Your task to perform on an android device: choose inbox layout in the gmail app Image 0: 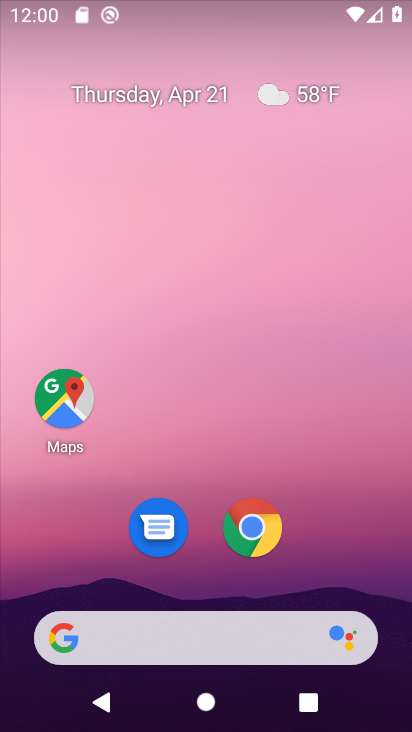
Step 0: drag from (325, 484) to (289, 218)
Your task to perform on an android device: choose inbox layout in the gmail app Image 1: 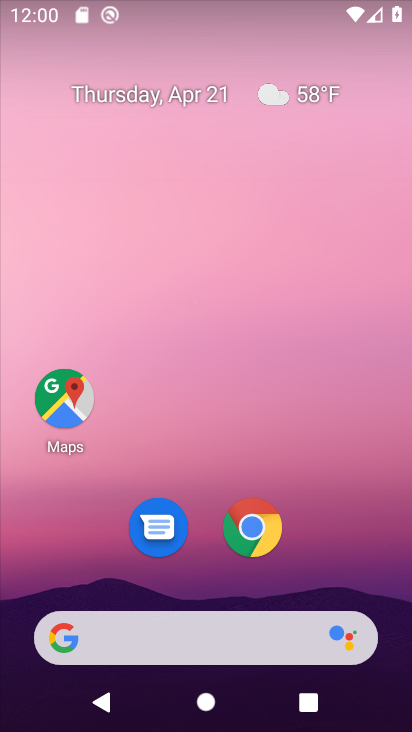
Step 1: drag from (331, 559) to (290, 142)
Your task to perform on an android device: choose inbox layout in the gmail app Image 2: 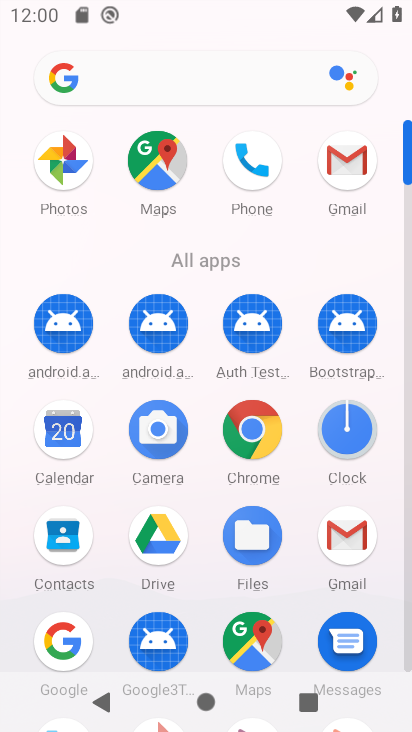
Step 2: click (327, 172)
Your task to perform on an android device: choose inbox layout in the gmail app Image 3: 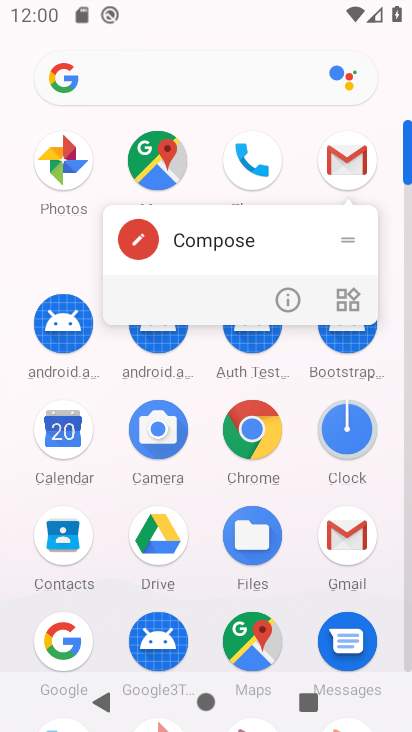
Step 3: click (341, 163)
Your task to perform on an android device: choose inbox layout in the gmail app Image 4: 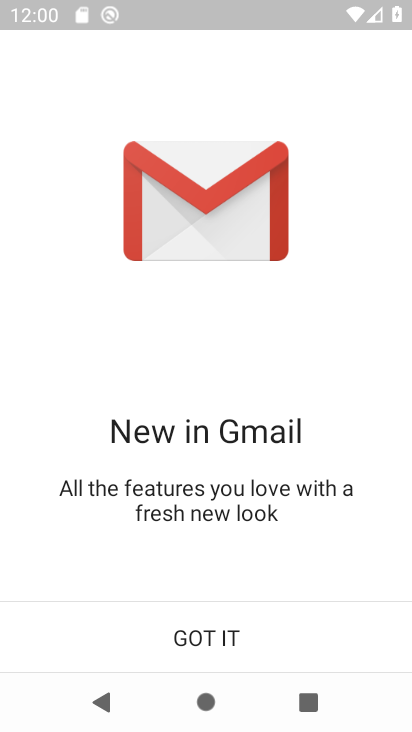
Step 4: click (191, 640)
Your task to perform on an android device: choose inbox layout in the gmail app Image 5: 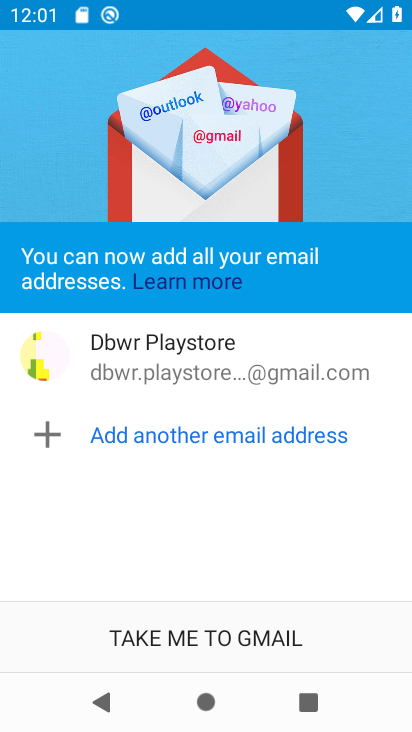
Step 5: click (192, 636)
Your task to perform on an android device: choose inbox layout in the gmail app Image 6: 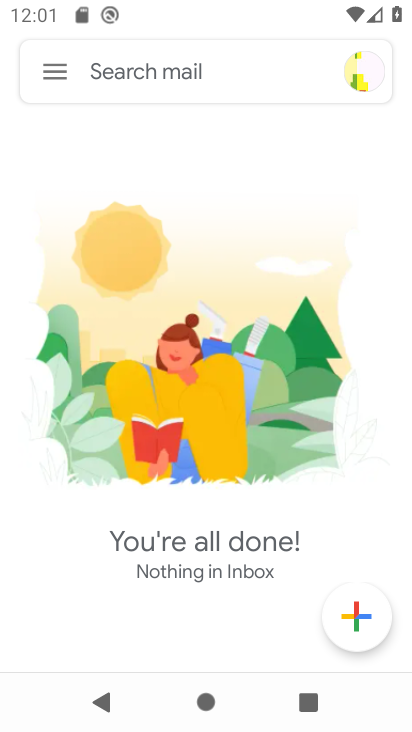
Step 6: click (45, 81)
Your task to perform on an android device: choose inbox layout in the gmail app Image 7: 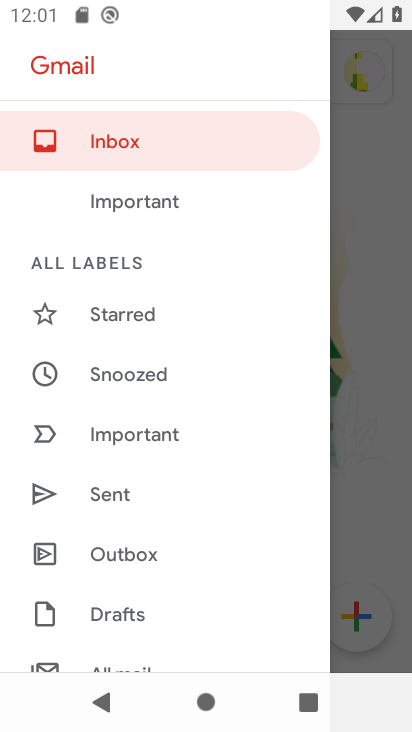
Step 7: click (124, 153)
Your task to perform on an android device: choose inbox layout in the gmail app Image 8: 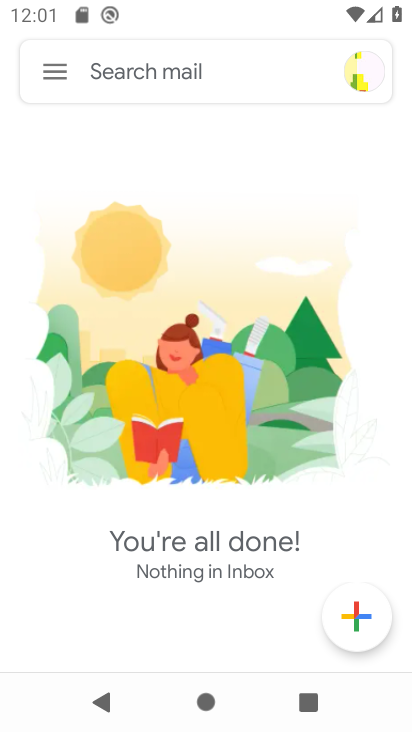
Step 8: task complete